Your task to perform on an android device: turn on data saver in the chrome app Image 0: 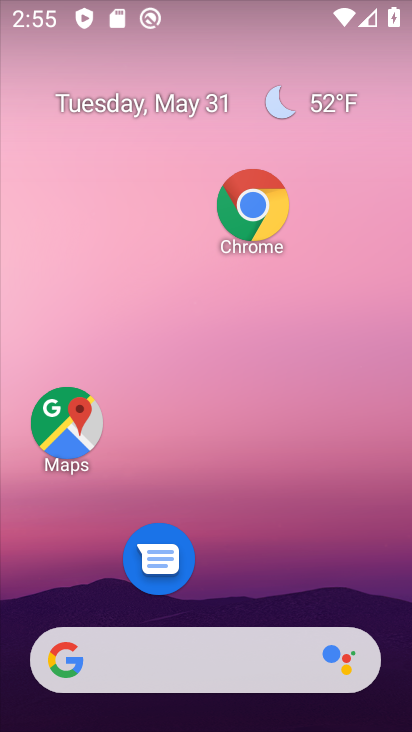
Step 0: click (251, 228)
Your task to perform on an android device: turn on data saver in the chrome app Image 1: 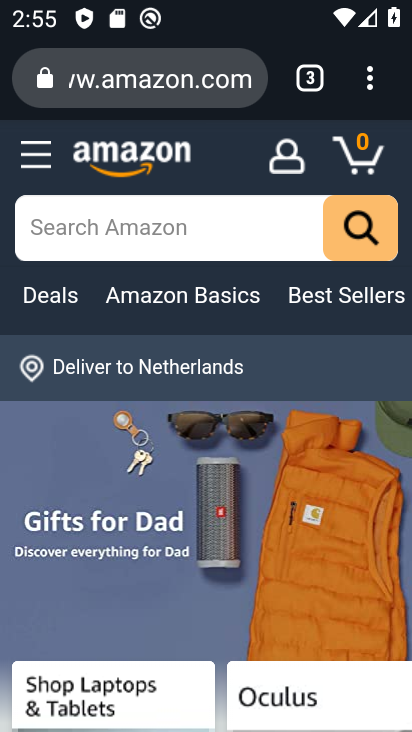
Step 1: click (373, 77)
Your task to perform on an android device: turn on data saver in the chrome app Image 2: 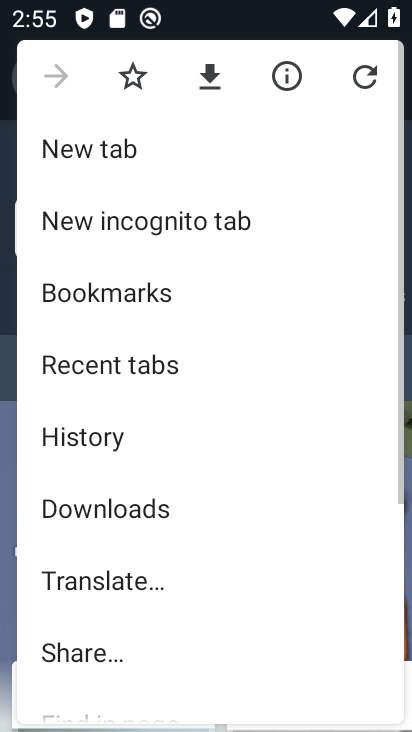
Step 2: drag from (186, 579) to (201, 384)
Your task to perform on an android device: turn on data saver in the chrome app Image 3: 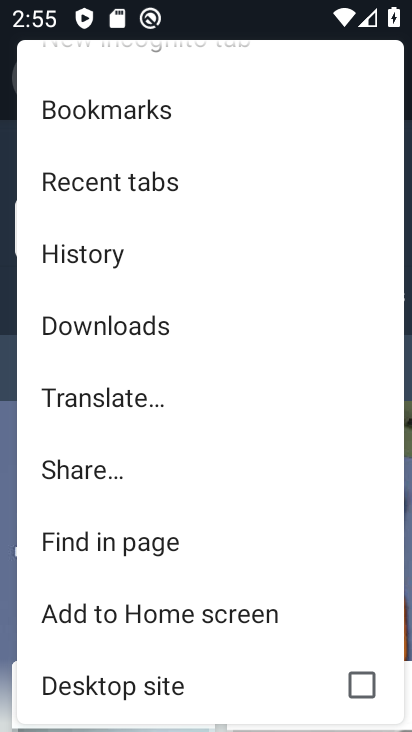
Step 3: drag from (139, 640) to (176, 371)
Your task to perform on an android device: turn on data saver in the chrome app Image 4: 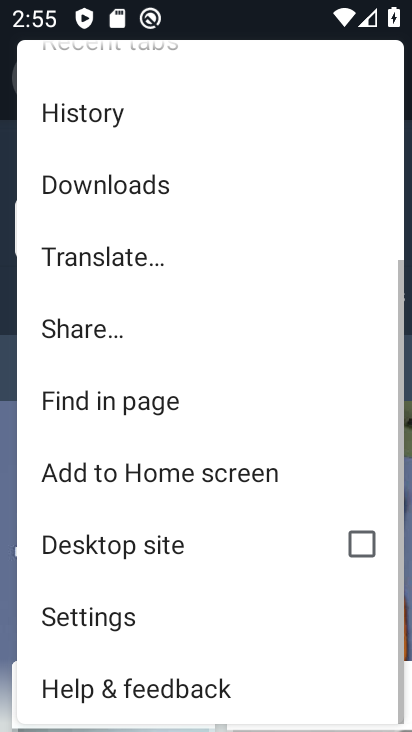
Step 4: click (150, 621)
Your task to perform on an android device: turn on data saver in the chrome app Image 5: 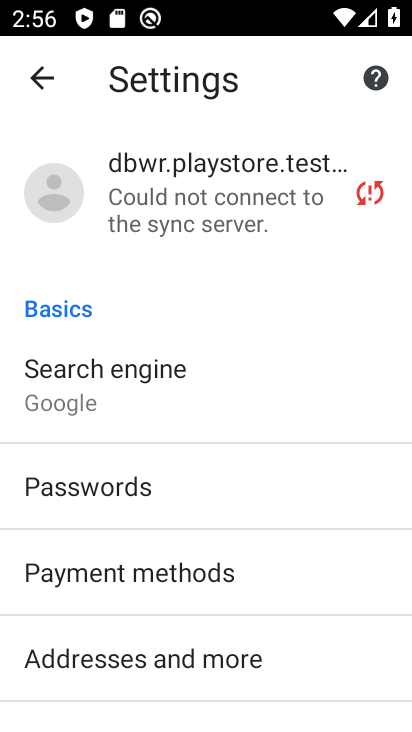
Step 5: drag from (135, 571) to (168, 351)
Your task to perform on an android device: turn on data saver in the chrome app Image 6: 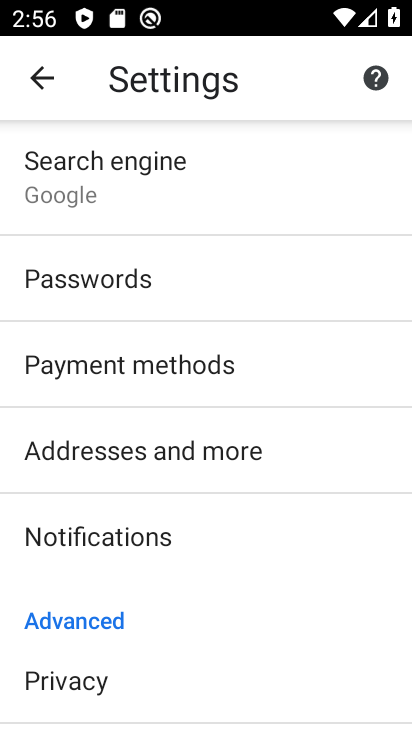
Step 6: drag from (169, 641) to (193, 399)
Your task to perform on an android device: turn on data saver in the chrome app Image 7: 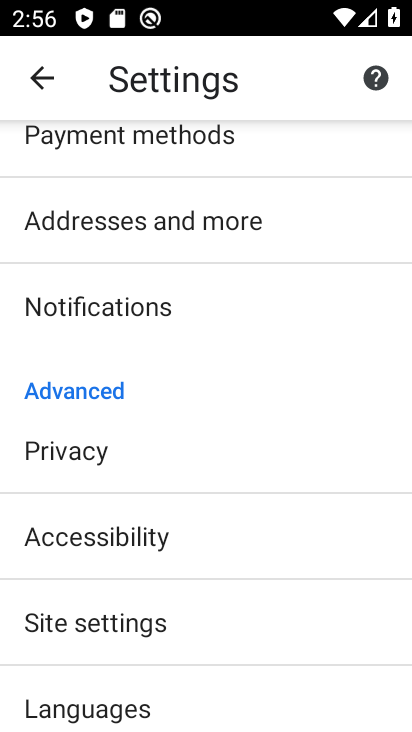
Step 7: drag from (163, 625) to (194, 419)
Your task to perform on an android device: turn on data saver in the chrome app Image 8: 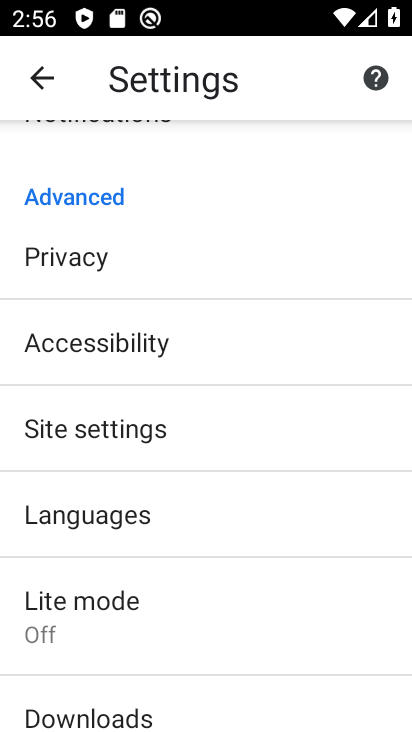
Step 8: drag from (138, 613) to (167, 443)
Your task to perform on an android device: turn on data saver in the chrome app Image 9: 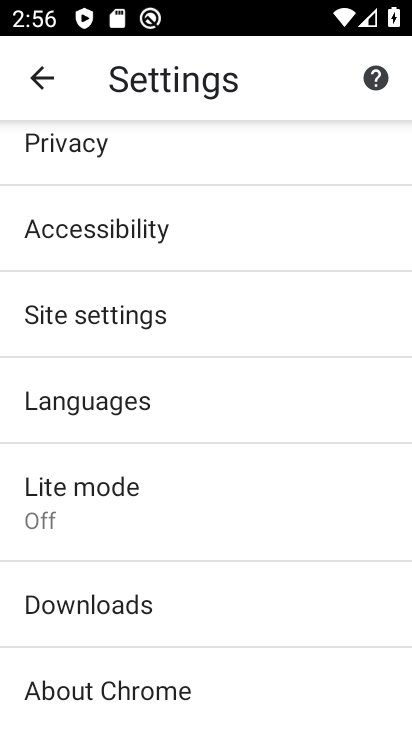
Step 9: click (134, 473)
Your task to perform on an android device: turn on data saver in the chrome app Image 10: 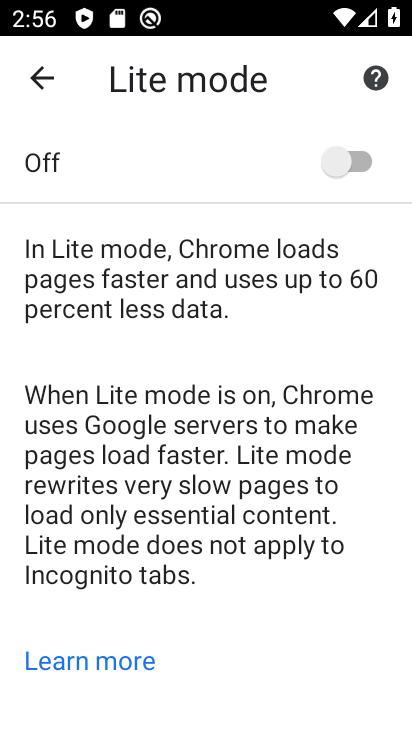
Step 10: click (364, 154)
Your task to perform on an android device: turn on data saver in the chrome app Image 11: 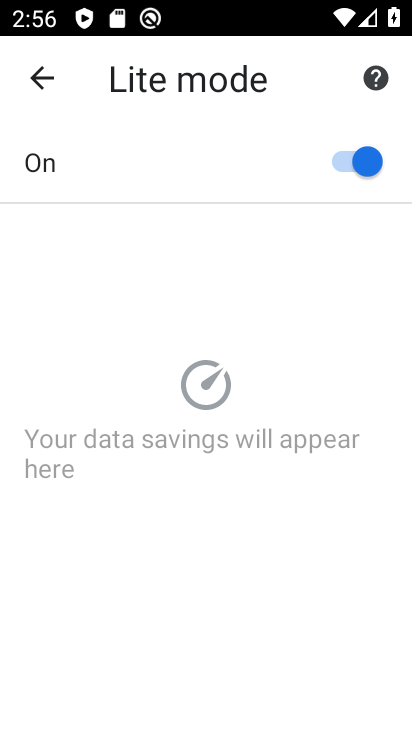
Step 11: task complete